Your task to perform on an android device: Search for sushi restaurants on Maps Image 0: 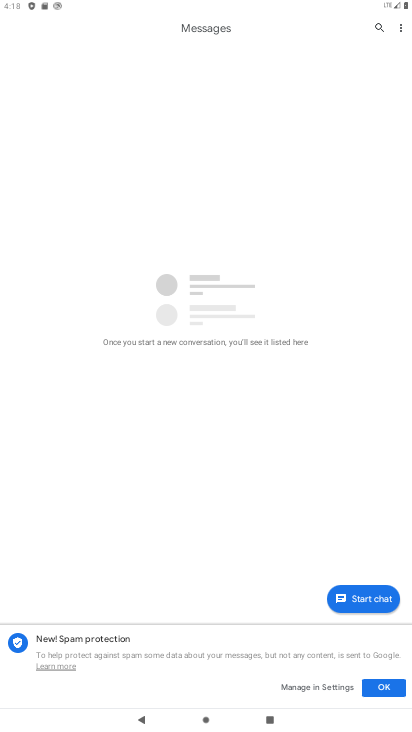
Step 0: click (329, 687)
Your task to perform on an android device: Search for sushi restaurants on Maps Image 1: 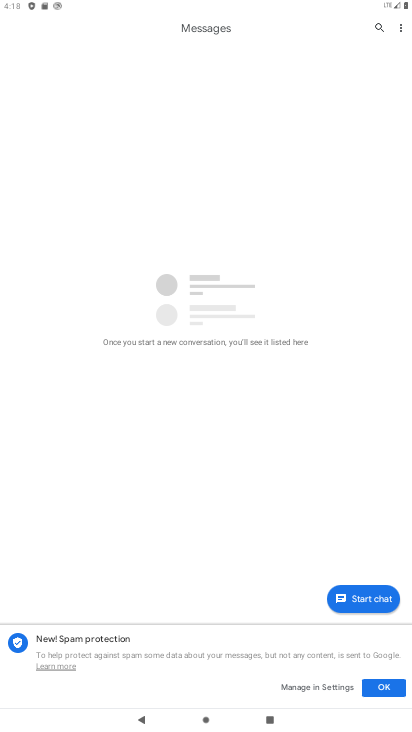
Step 1: click (326, 686)
Your task to perform on an android device: Search for sushi restaurants on Maps Image 2: 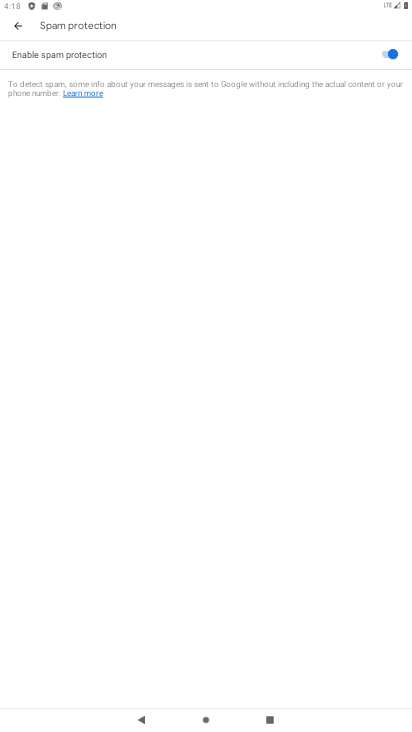
Step 2: click (12, 20)
Your task to perform on an android device: Search for sushi restaurants on Maps Image 3: 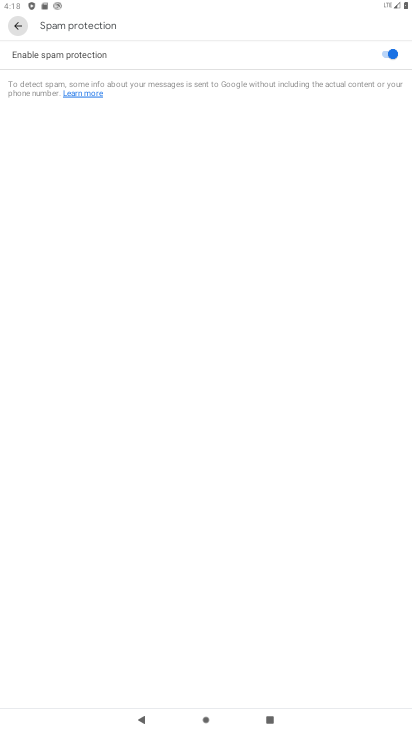
Step 3: click (12, 20)
Your task to perform on an android device: Search for sushi restaurants on Maps Image 4: 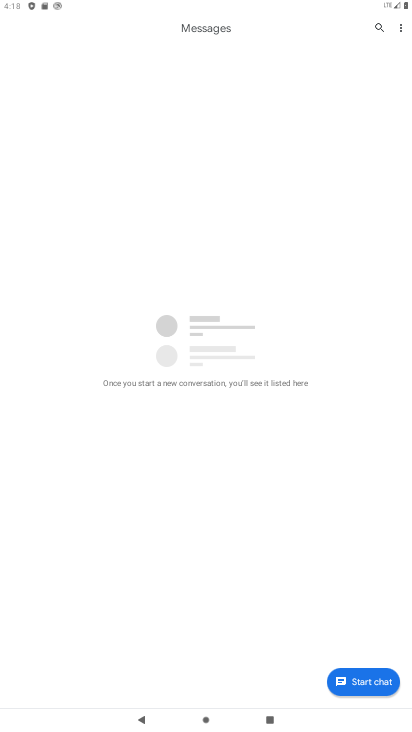
Step 4: press back button
Your task to perform on an android device: Search for sushi restaurants on Maps Image 5: 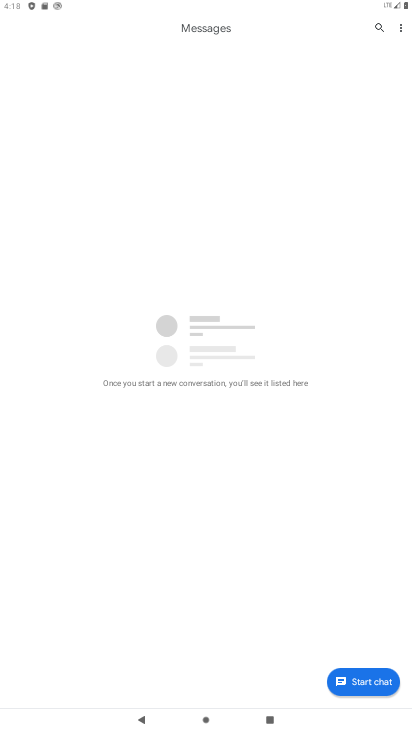
Step 5: press back button
Your task to perform on an android device: Search for sushi restaurants on Maps Image 6: 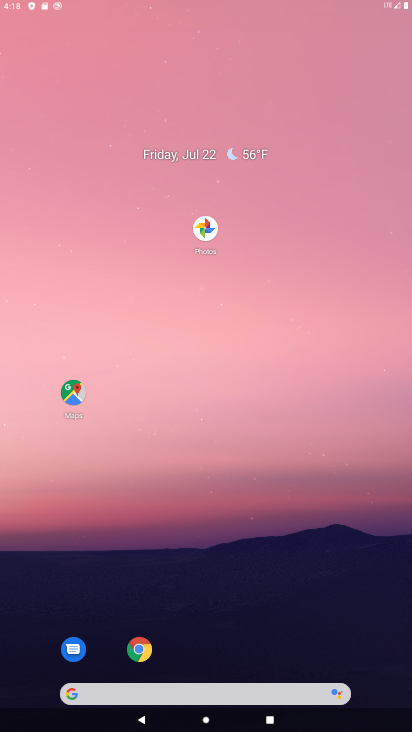
Step 6: press back button
Your task to perform on an android device: Search for sushi restaurants on Maps Image 7: 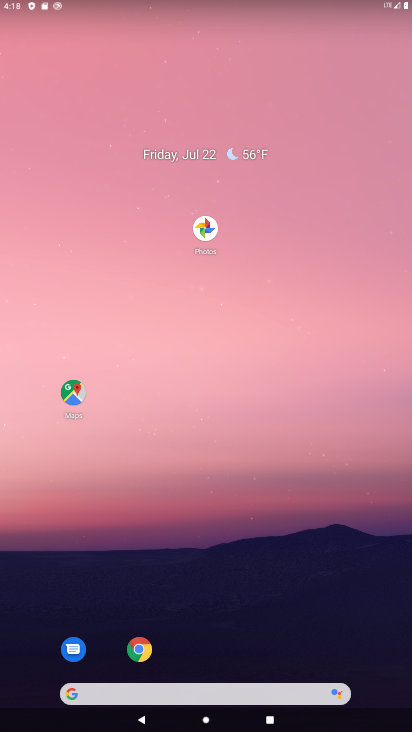
Step 7: drag from (236, 345) to (233, 119)
Your task to perform on an android device: Search for sushi restaurants on Maps Image 8: 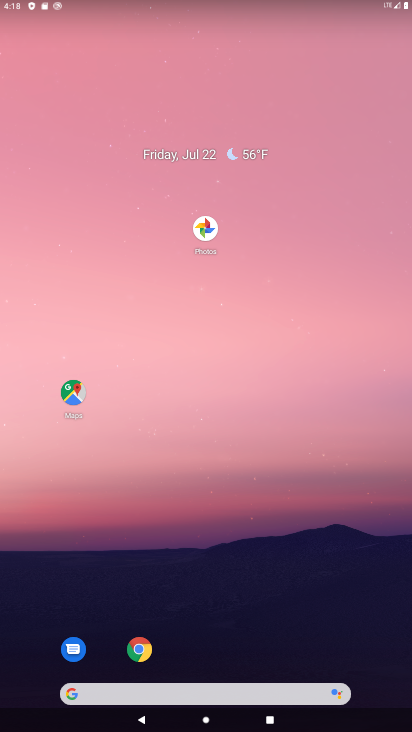
Step 8: drag from (219, 424) to (166, 102)
Your task to perform on an android device: Search for sushi restaurants on Maps Image 9: 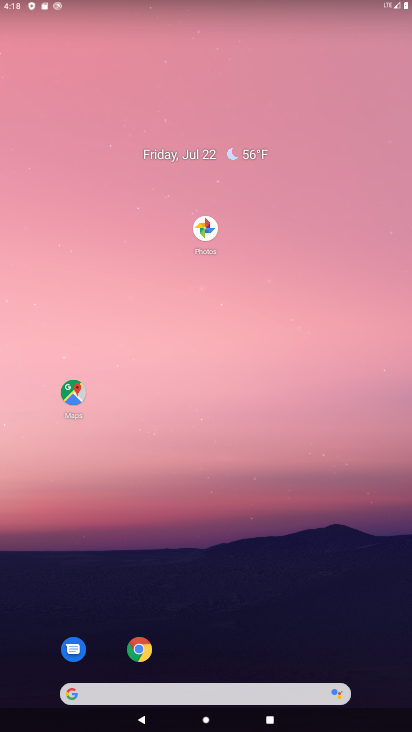
Step 9: drag from (221, 308) to (249, 104)
Your task to perform on an android device: Search for sushi restaurants on Maps Image 10: 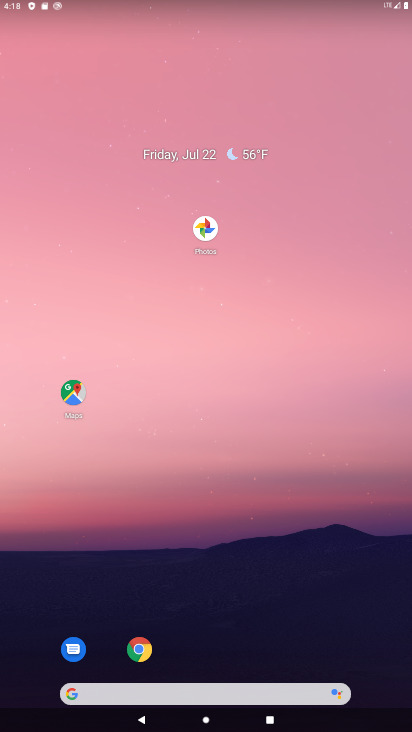
Step 10: drag from (220, 602) to (182, 132)
Your task to perform on an android device: Search for sushi restaurants on Maps Image 11: 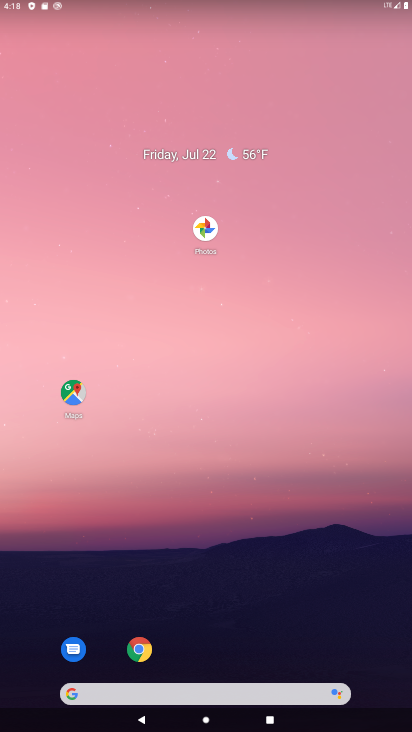
Step 11: drag from (191, 323) to (159, 25)
Your task to perform on an android device: Search for sushi restaurants on Maps Image 12: 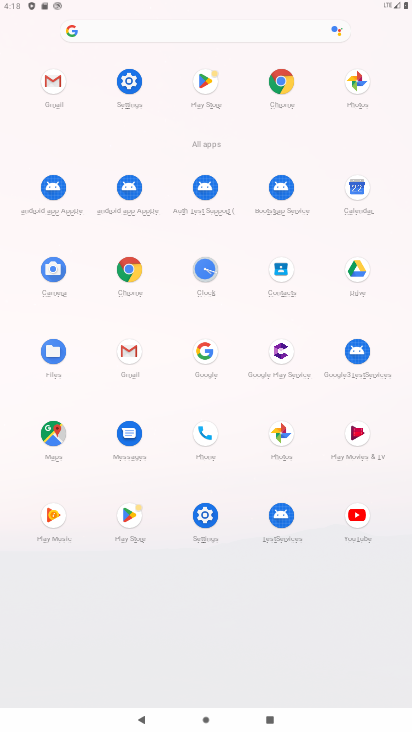
Step 12: click (52, 442)
Your task to perform on an android device: Search for sushi restaurants on Maps Image 13: 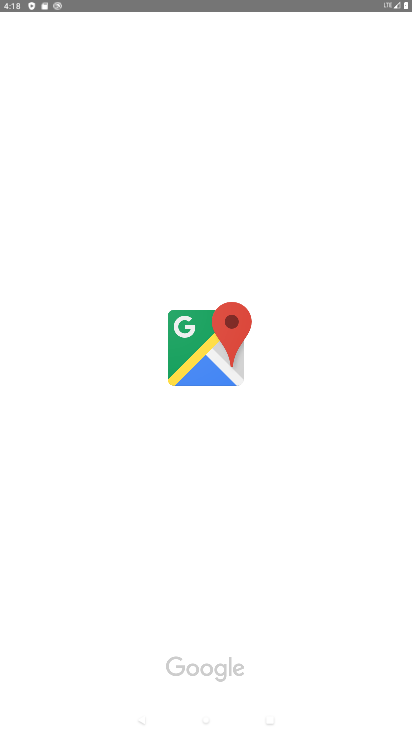
Step 13: click (37, 420)
Your task to perform on an android device: Search for sushi restaurants on Maps Image 14: 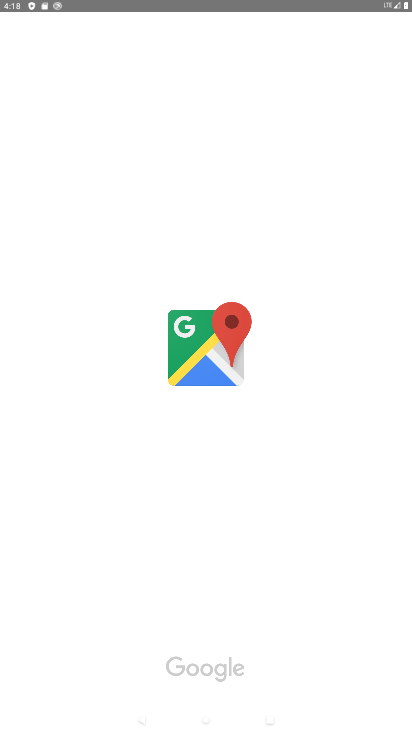
Step 14: click (38, 421)
Your task to perform on an android device: Search for sushi restaurants on Maps Image 15: 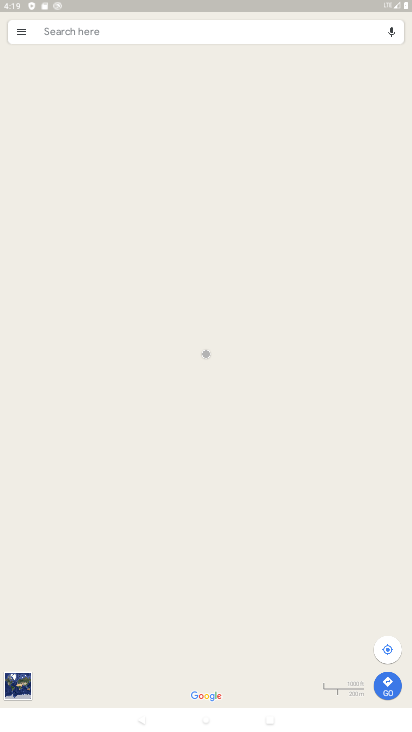
Step 15: click (85, 37)
Your task to perform on an android device: Search for sushi restaurants on Maps Image 16: 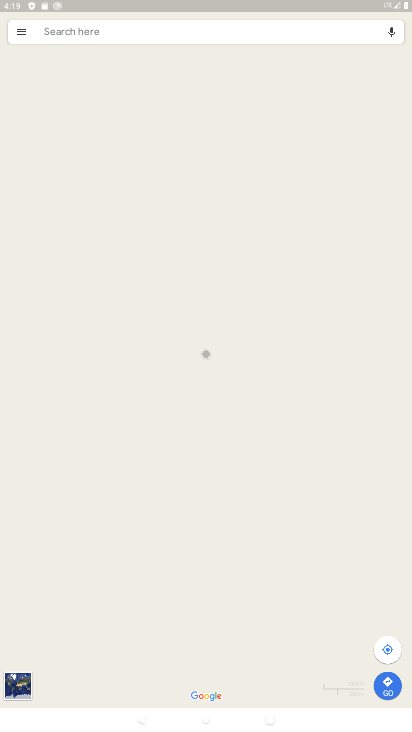
Step 16: click (80, 33)
Your task to perform on an android device: Search for sushi restaurants on Maps Image 17: 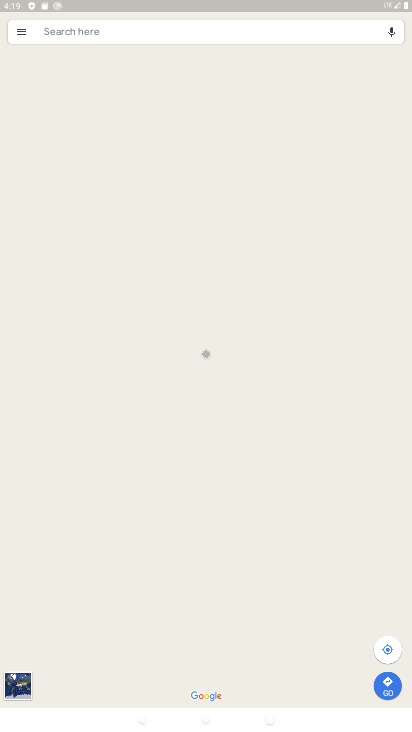
Step 17: click (77, 31)
Your task to perform on an android device: Search for sushi restaurants on Maps Image 18: 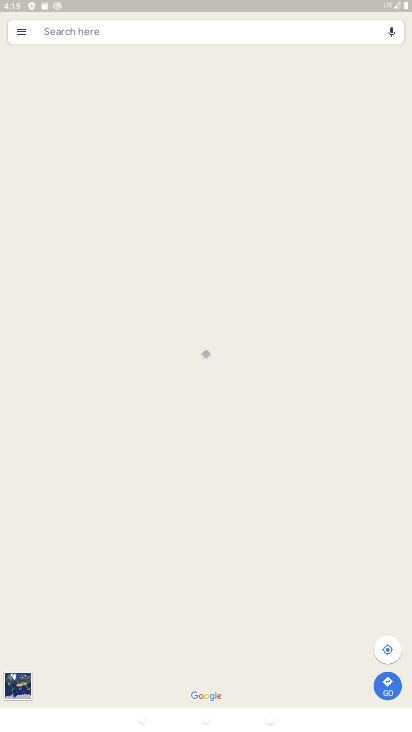
Step 18: click (77, 31)
Your task to perform on an android device: Search for sushi restaurants on Maps Image 19: 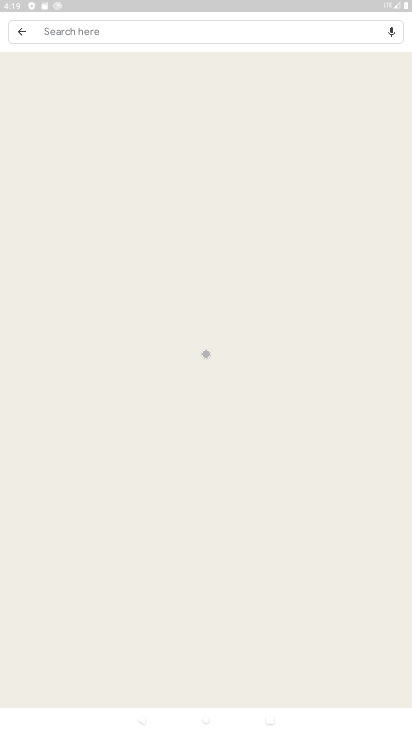
Step 19: click (79, 30)
Your task to perform on an android device: Search for sushi restaurants on Maps Image 20: 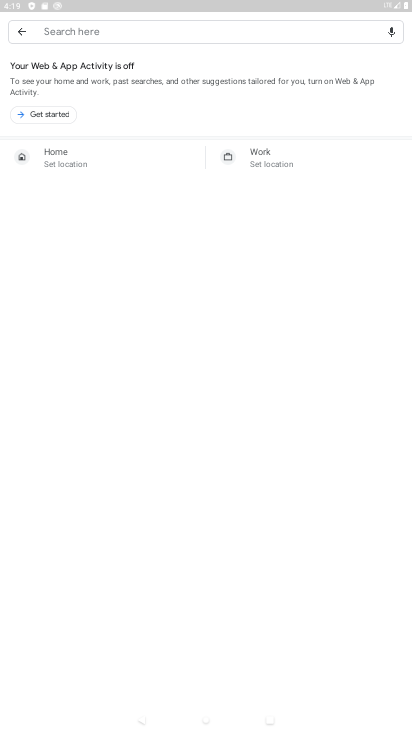
Step 20: click (83, 29)
Your task to perform on an android device: Search for sushi restaurants on Maps Image 21: 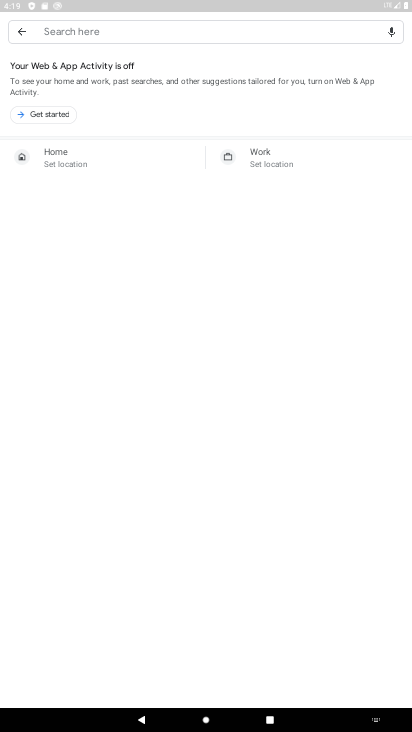
Step 21: click (83, 29)
Your task to perform on an android device: Search for sushi restaurants on Maps Image 22: 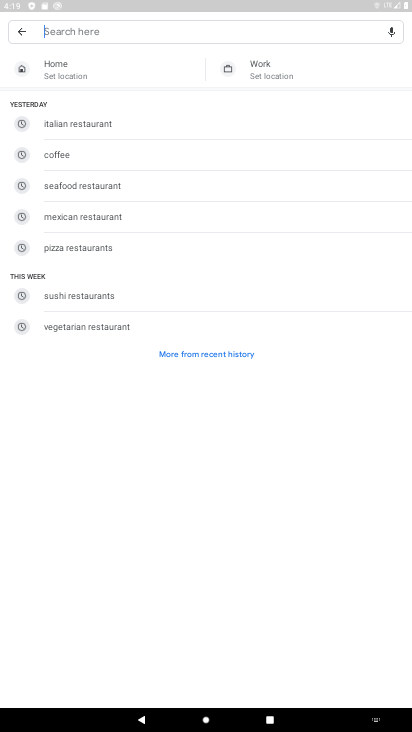
Step 22: type "sushi restaurants"
Your task to perform on an android device: Search for sushi restaurants on Maps Image 23: 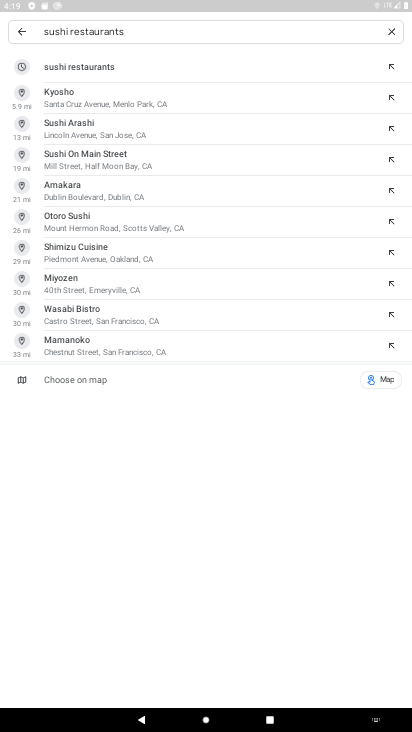
Step 23: click (95, 62)
Your task to perform on an android device: Search for sushi restaurants on Maps Image 24: 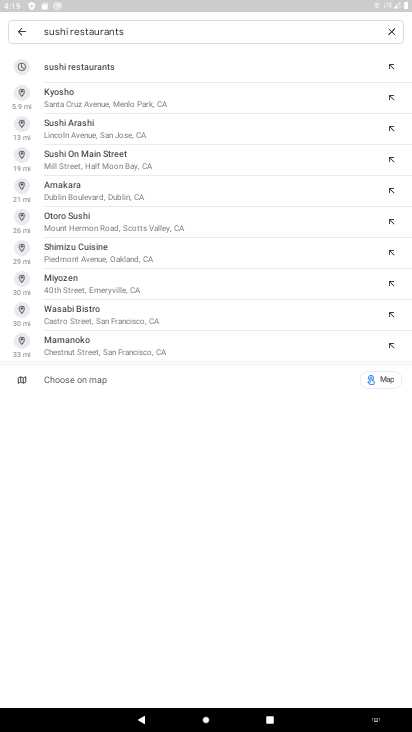
Step 24: click (95, 62)
Your task to perform on an android device: Search for sushi restaurants on Maps Image 25: 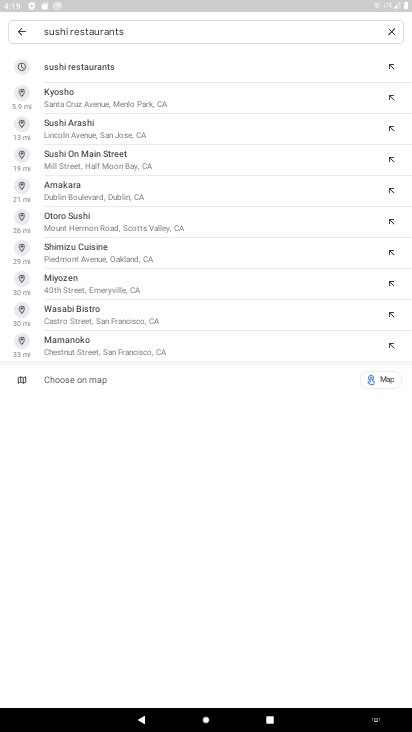
Step 25: click (96, 62)
Your task to perform on an android device: Search for sushi restaurants on Maps Image 26: 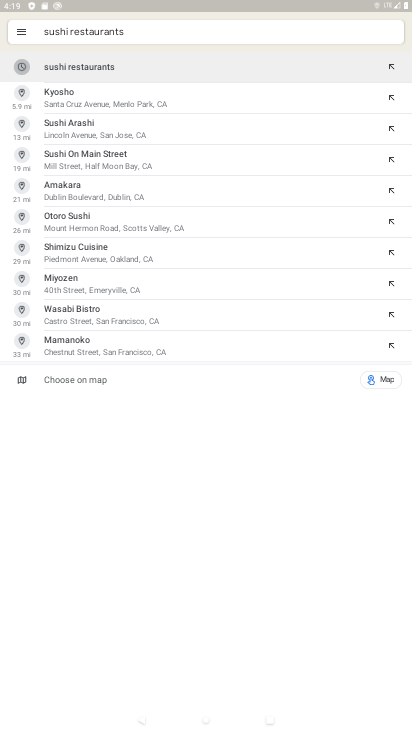
Step 26: click (96, 62)
Your task to perform on an android device: Search for sushi restaurants on Maps Image 27: 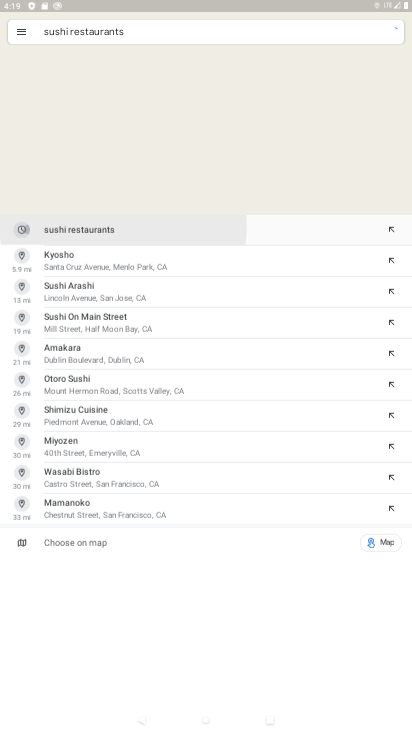
Step 27: click (97, 62)
Your task to perform on an android device: Search for sushi restaurants on Maps Image 28: 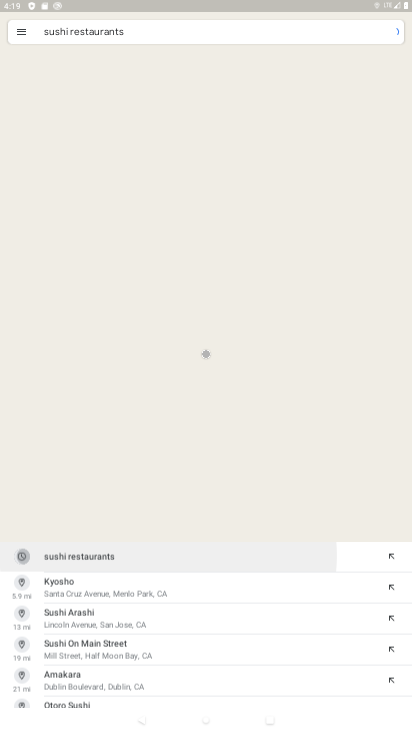
Step 28: click (100, 60)
Your task to perform on an android device: Search for sushi restaurants on Maps Image 29: 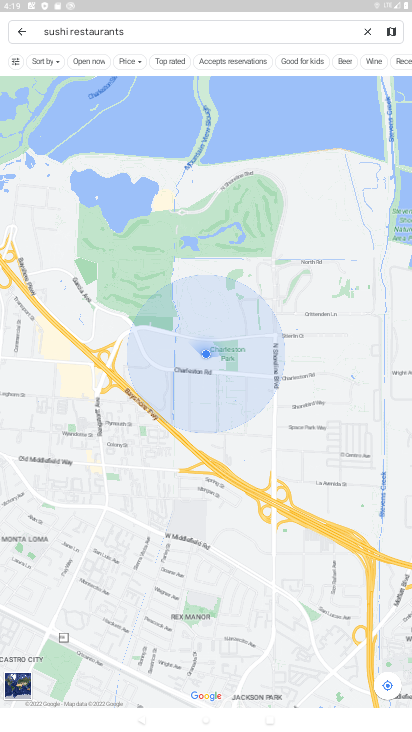
Step 29: task complete